Your task to perform on an android device: check google app version Image 0: 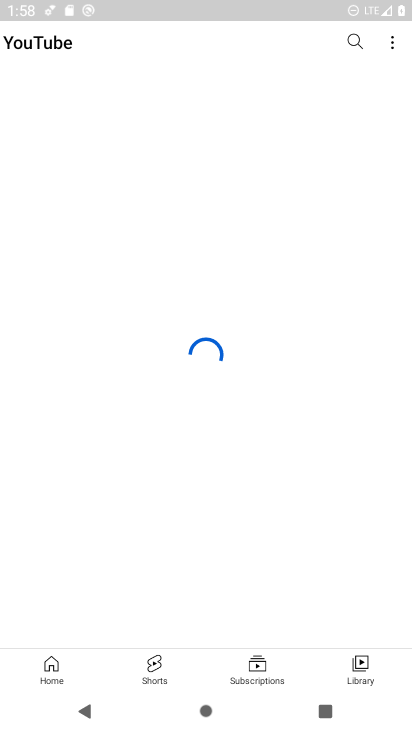
Step 0: press home button
Your task to perform on an android device: check google app version Image 1: 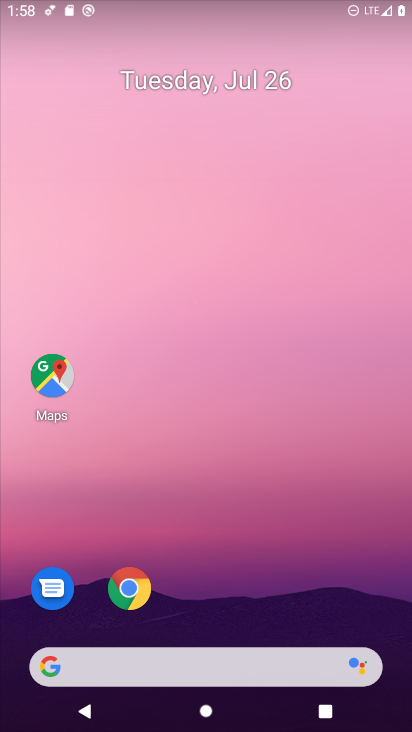
Step 1: drag from (207, 632) to (411, 357)
Your task to perform on an android device: check google app version Image 2: 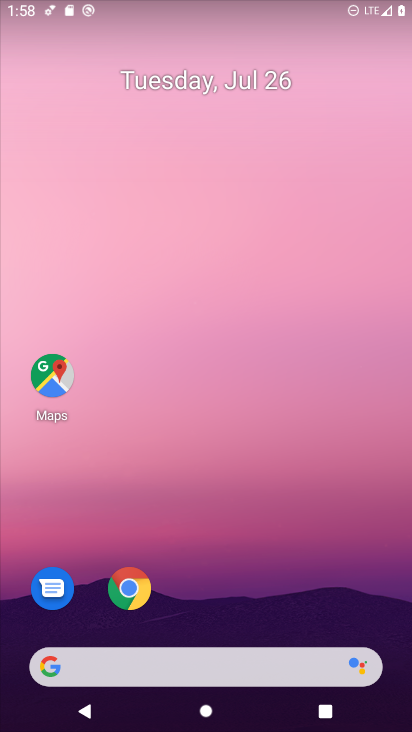
Step 2: drag from (259, 621) to (218, 4)
Your task to perform on an android device: check google app version Image 3: 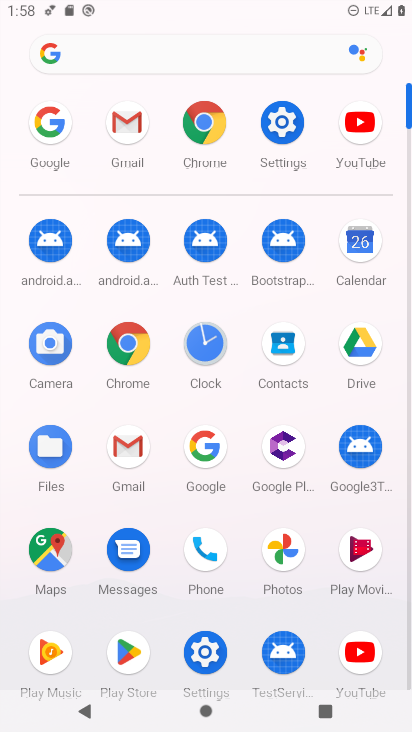
Step 3: click (202, 450)
Your task to perform on an android device: check google app version Image 4: 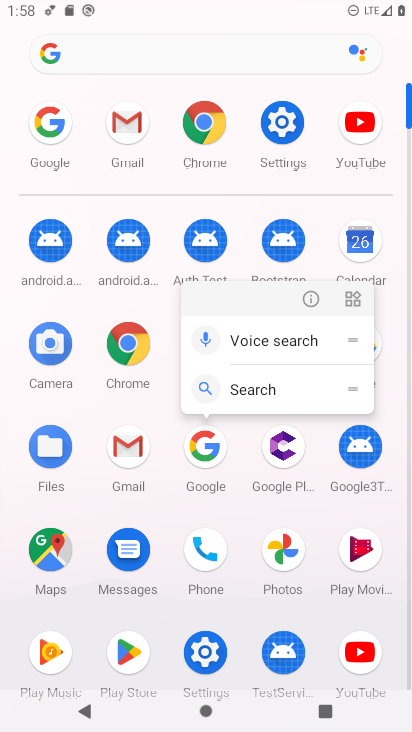
Step 4: click (305, 292)
Your task to perform on an android device: check google app version Image 5: 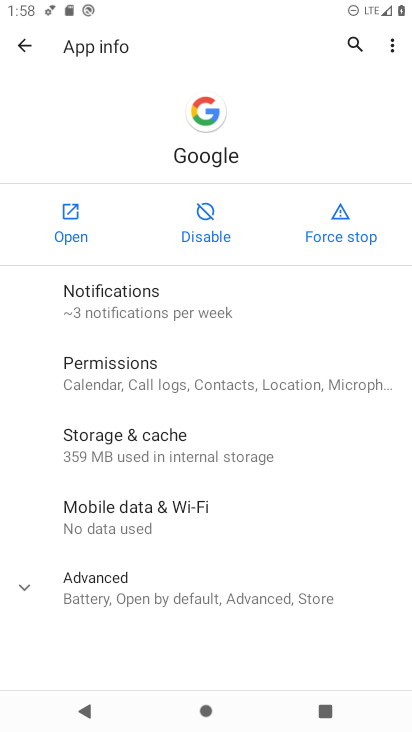
Step 5: click (122, 602)
Your task to perform on an android device: check google app version Image 6: 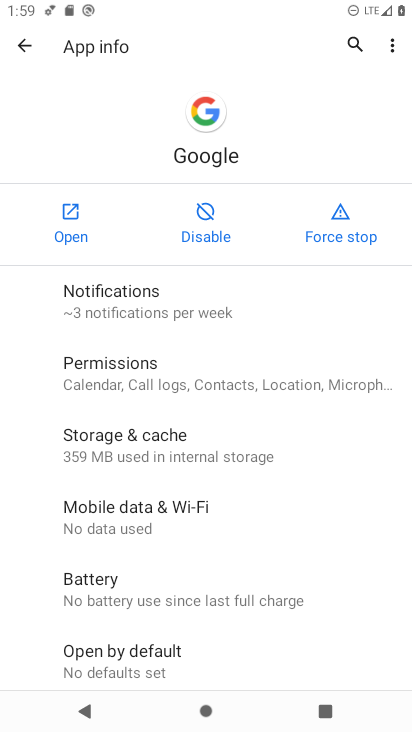
Step 6: task complete